Your task to perform on an android device: Open CNN.com Image 0: 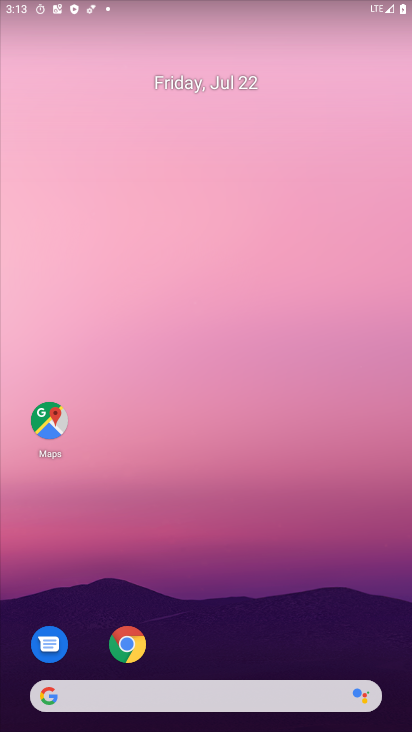
Step 0: press home button
Your task to perform on an android device: Open CNN.com Image 1: 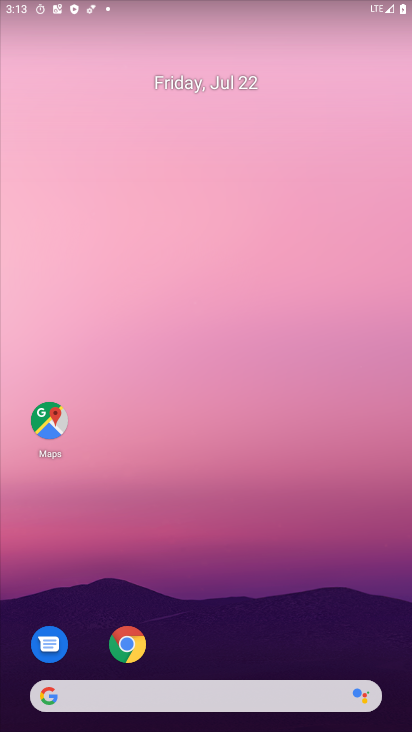
Step 1: click (51, 700)
Your task to perform on an android device: Open CNN.com Image 2: 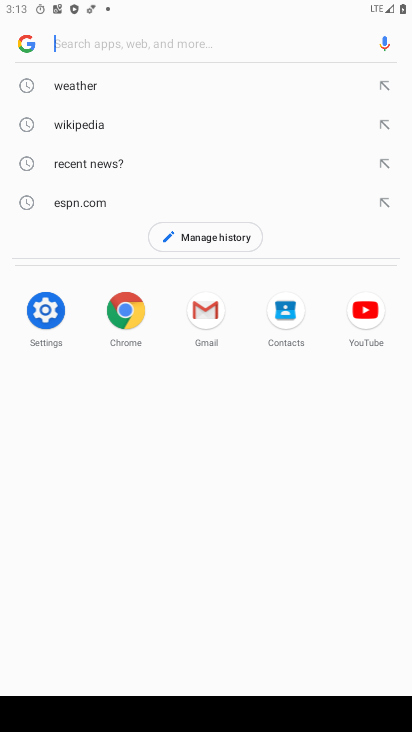
Step 2: type "CNN.com"
Your task to perform on an android device: Open CNN.com Image 3: 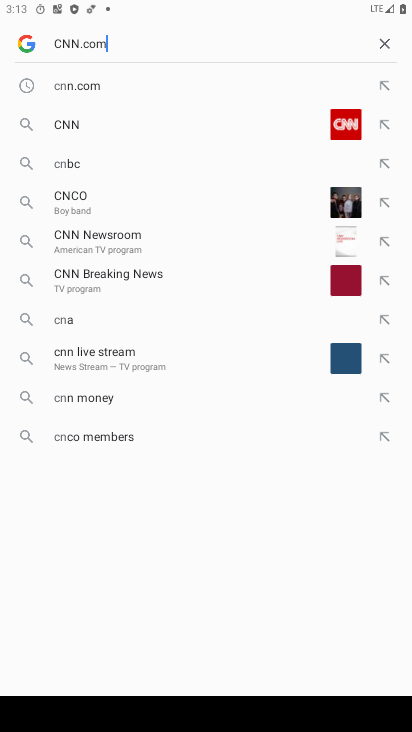
Step 3: press enter
Your task to perform on an android device: Open CNN.com Image 4: 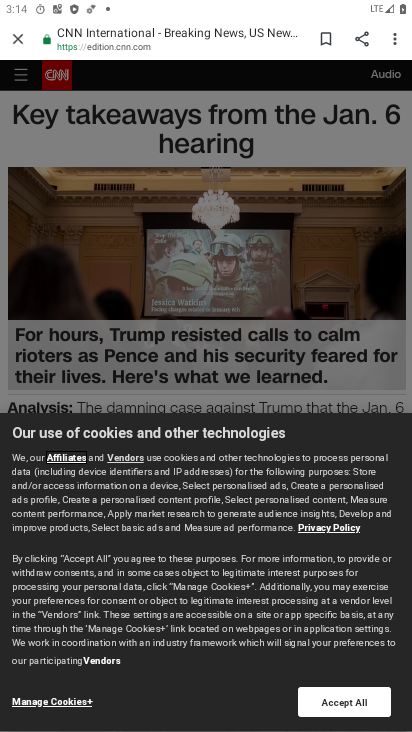
Step 4: task complete